Your task to perform on an android device: Search for sushi restaurants on Maps Image 0: 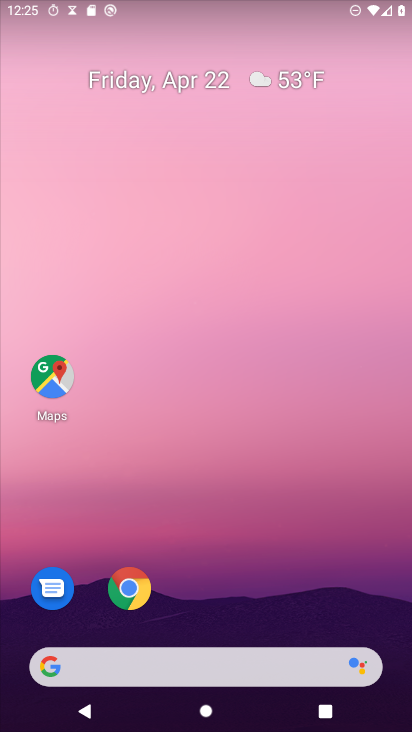
Step 0: click (63, 371)
Your task to perform on an android device: Search for sushi restaurants on Maps Image 1: 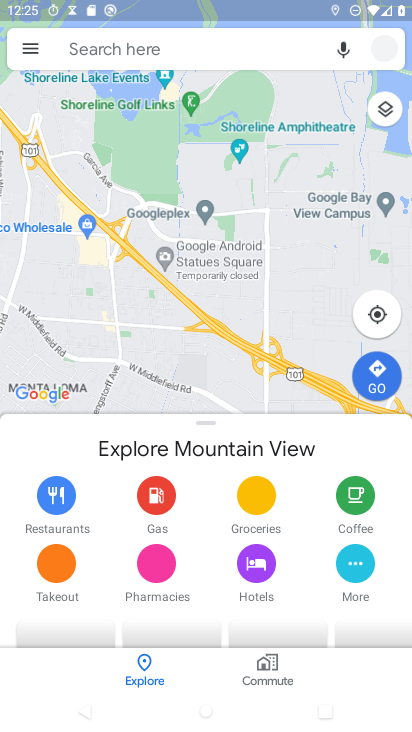
Step 1: click (198, 56)
Your task to perform on an android device: Search for sushi restaurants on Maps Image 2: 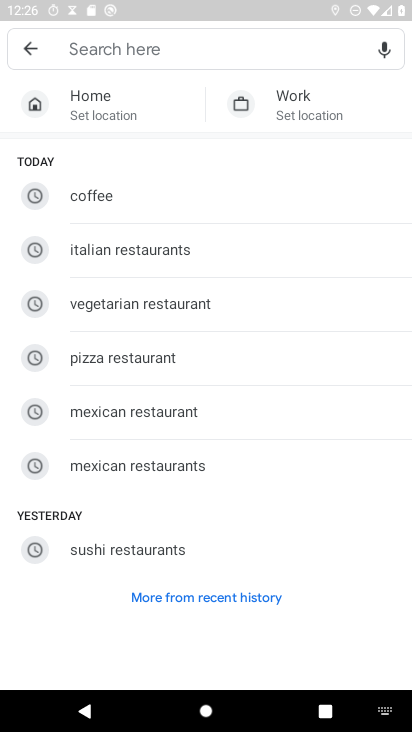
Step 2: type "sushi restaurants"
Your task to perform on an android device: Search for sushi restaurants on Maps Image 3: 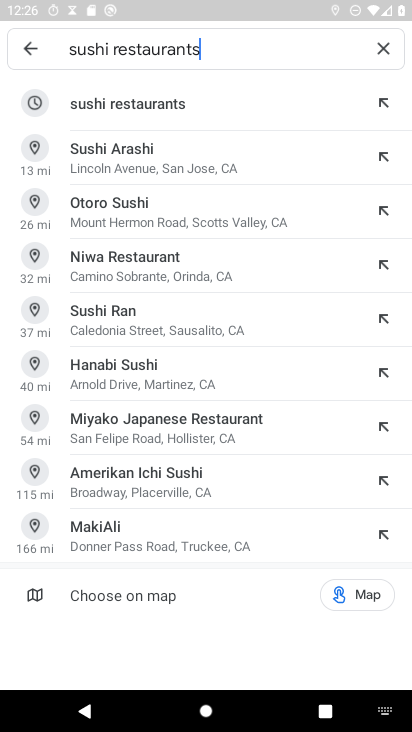
Step 3: click (135, 99)
Your task to perform on an android device: Search for sushi restaurants on Maps Image 4: 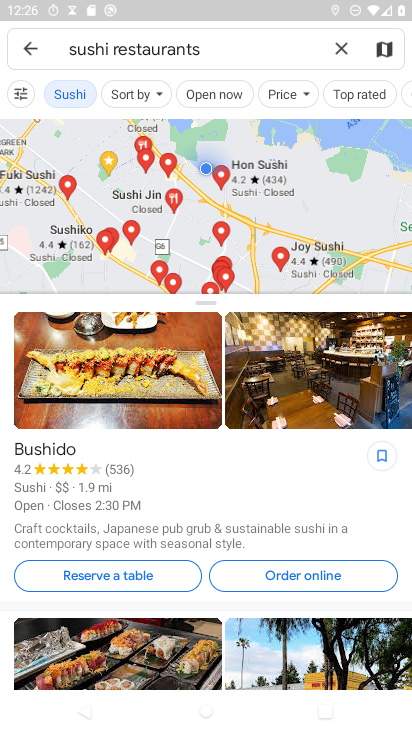
Step 4: task complete